Your task to perform on an android device: Open display settings Image 0: 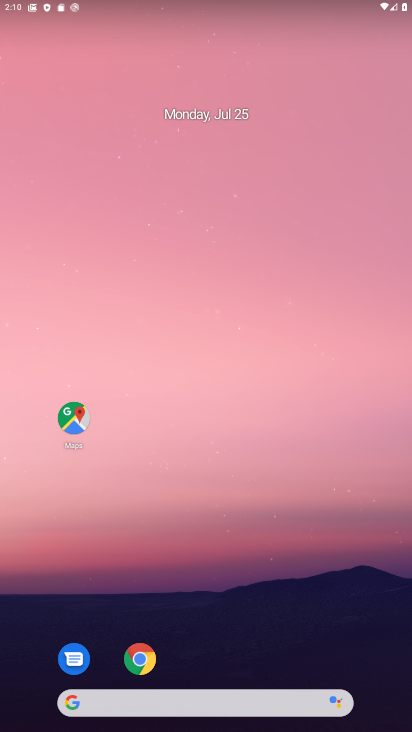
Step 0: drag from (190, 690) to (230, 43)
Your task to perform on an android device: Open display settings Image 1: 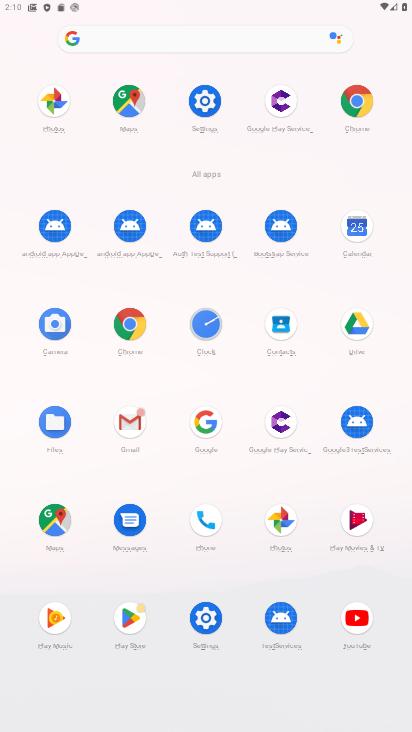
Step 1: click (199, 106)
Your task to perform on an android device: Open display settings Image 2: 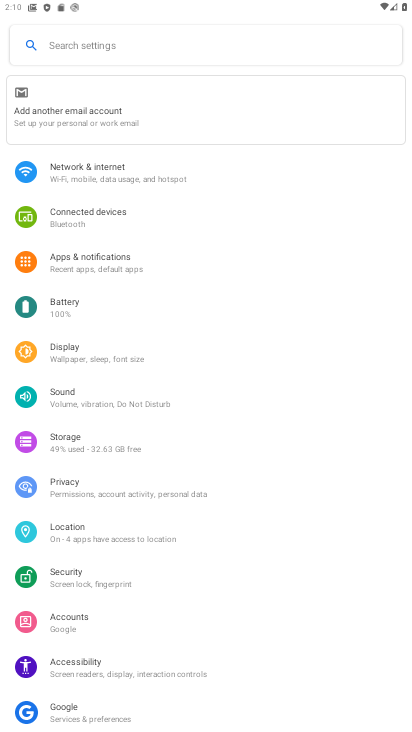
Step 2: click (68, 357)
Your task to perform on an android device: Open display settings Image 3: 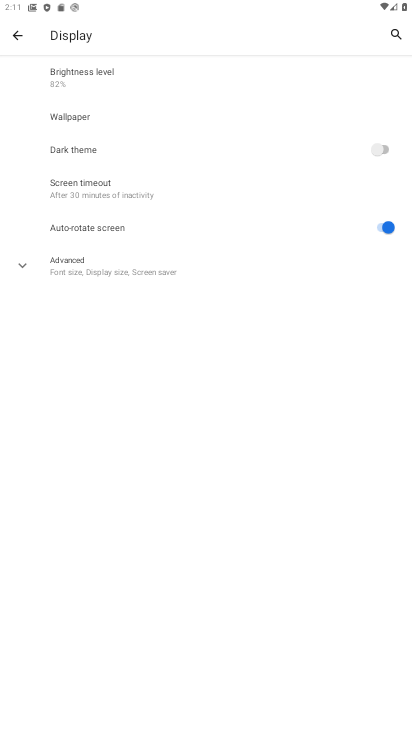
Step 3: click (69, 262)
Your task to perform on an android device: Open display settings Image 4: 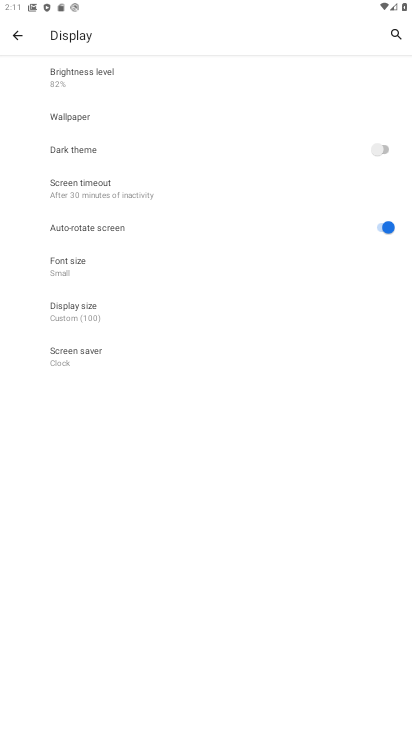
Step 4: task complete